Your task to perform on an android device: see sites visited before in the chrome app Image 0: 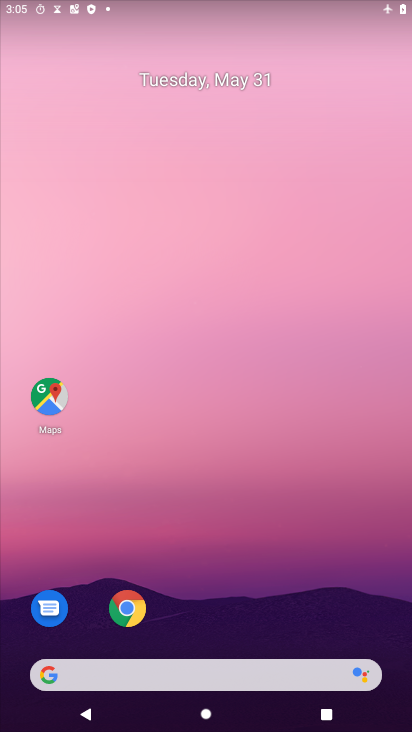
Step 0: drag from (207, 622) to (237, 132)
Your task to perform on an android device: see sites visited before in the chrome app Image 1: 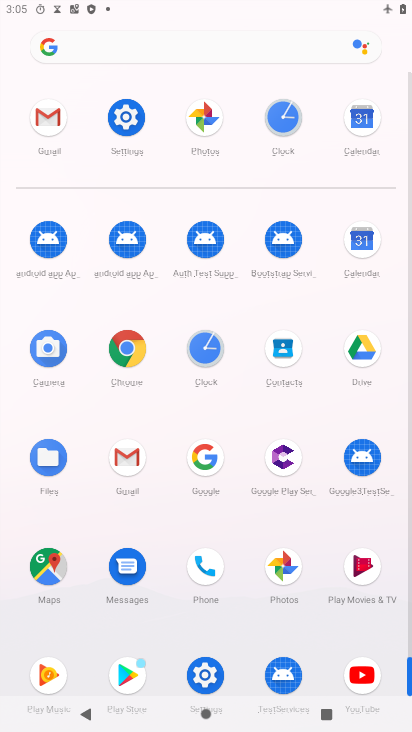
Step 1: click (123, 359)
Your task to perform on an android device: see sites visited before in the chrome app Image 2: 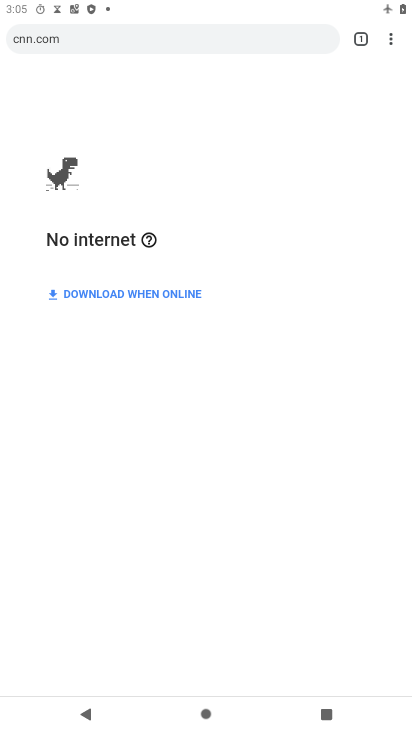
Step 2: click (393, 36)
Your task to perform on an android device: see sites visited before in the chrome app Image 3: 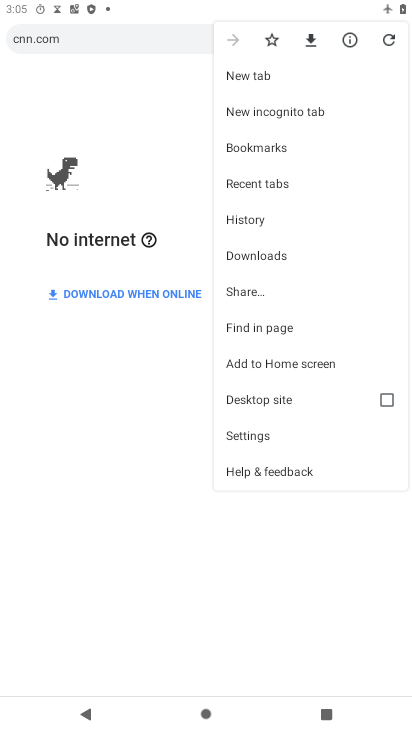
Step 3: click (255, 226)
Your task to perform on an android device: see sites visited before in the chrome app Image 4: 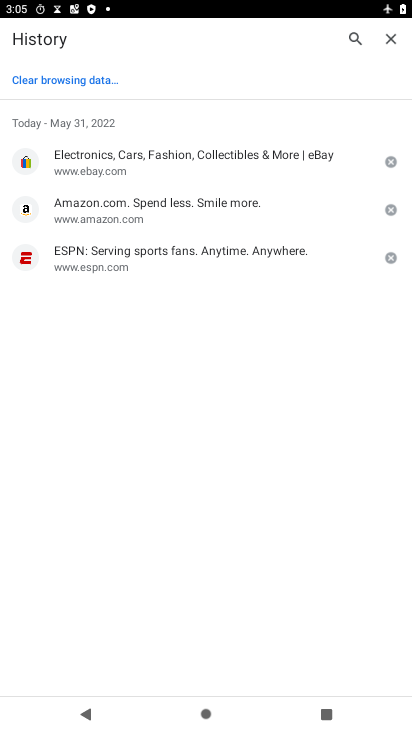
Step 4: task complete